Your task to perform on an android device: Search for vegetarian restaurants on Maps Image 0: 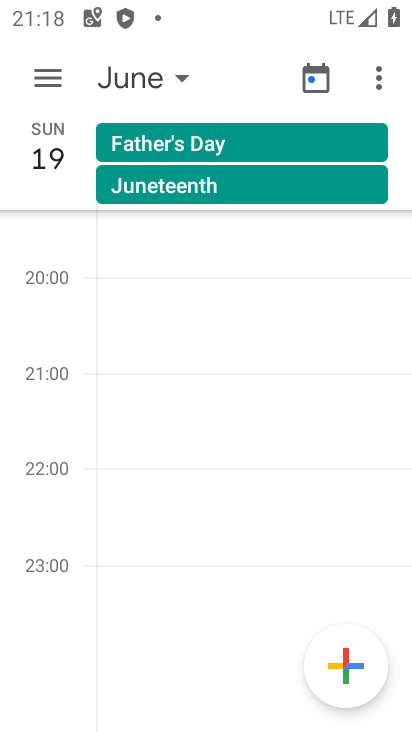
Step 0: press home button
Your task to perform on an android device: Search for vegetarian restaurants on Maps Image 1: 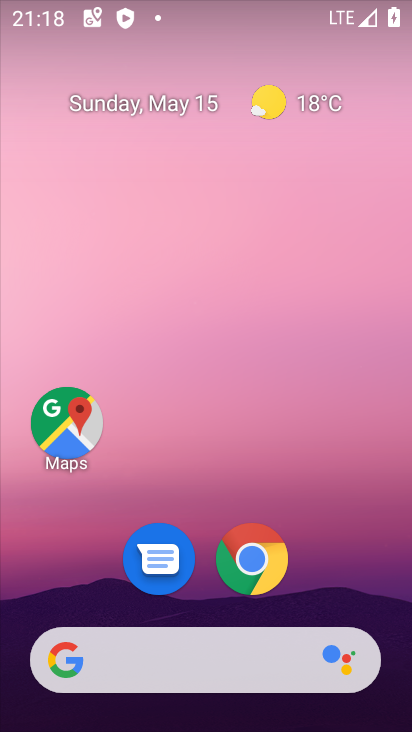
Step 1: click (45, 428)
Your task to perform on an android device: Search for vegetarian restaurants on Maps Image 2: 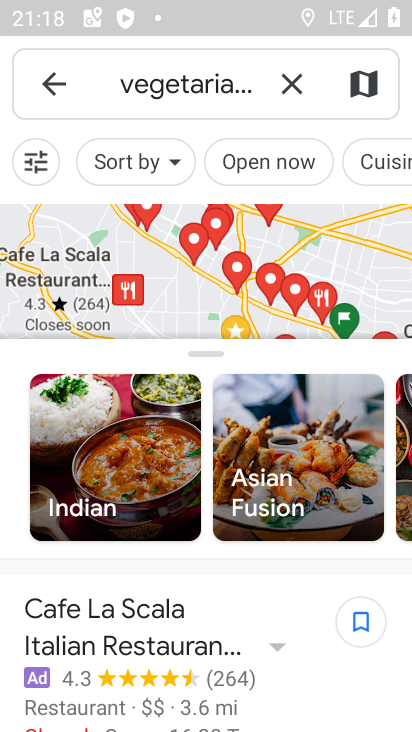
Step 2: task complete